Your task to perform on an android device: Open accessibility settings Image 0: 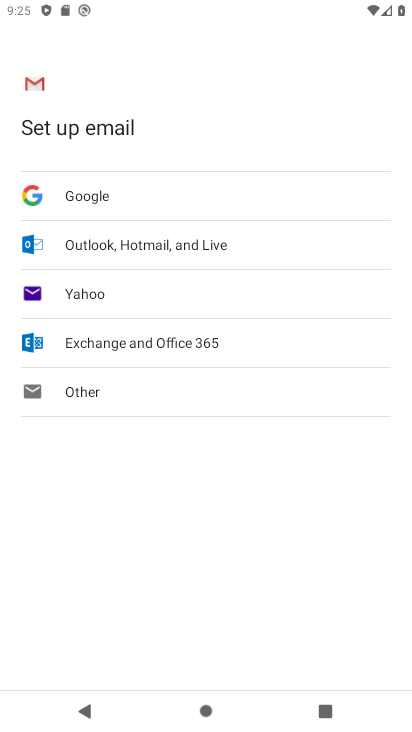
Step 0: press home button
Your task to perform on an android device: Open accessibility settings Image 1: 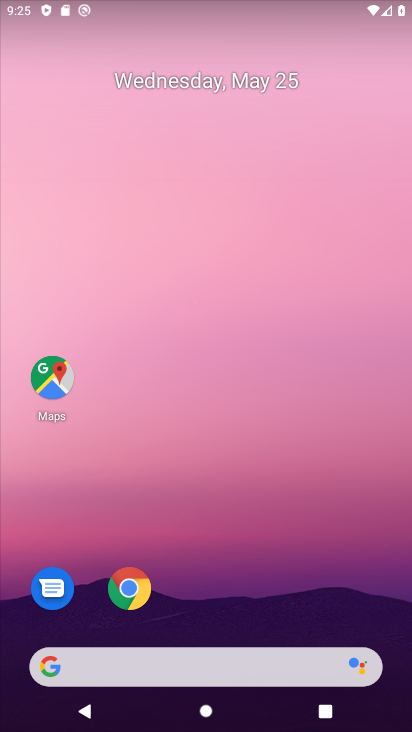
Step 1: drag from (222, 626) to (216, 5)
Your task to perform on an android device: Open accessibility settings Image 2: 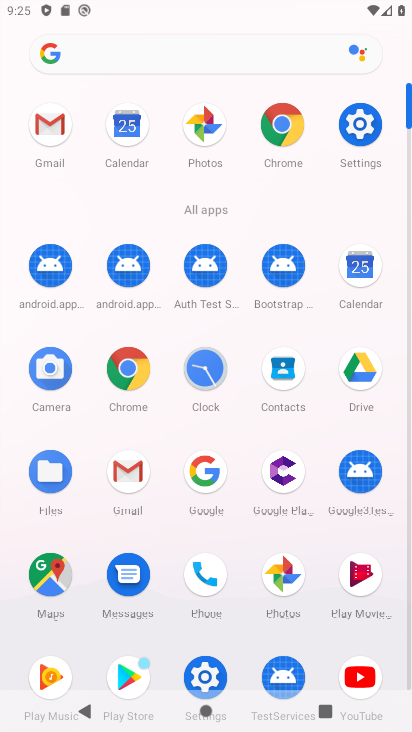
Step 2: click (354, 135)
Your task to perform on an android device: Open accessibility settings Image 3: 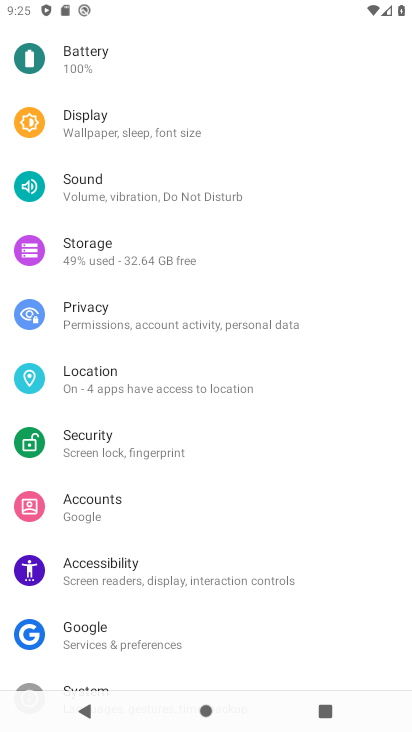
Step 3: drag from (227, 590) to (224, 393)
Your task to perform on an android device: Open accessibility settings Image 4: 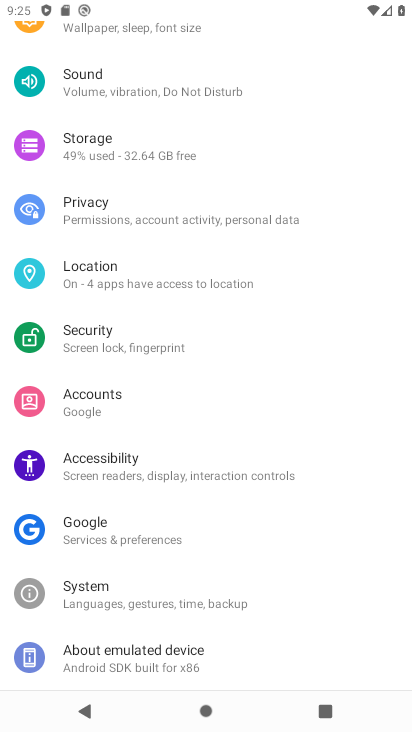
Step 4: click (141, 468)
Your task to perform on an android device: Open accessibility settings Image 5: 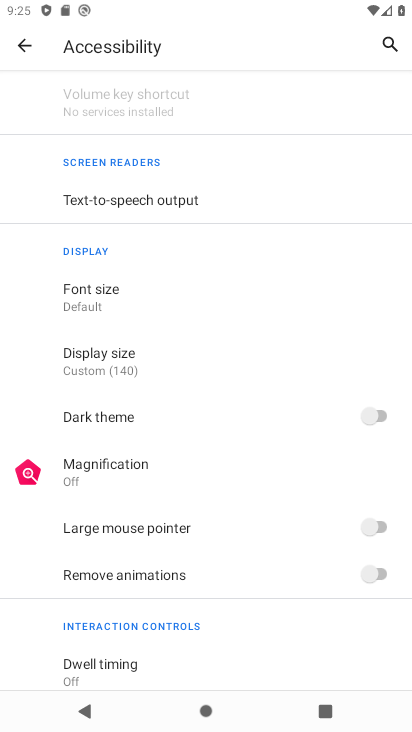
Step 5: task complete